Your task to perform on an android device: visit the assistant section in the google photos Image 0: 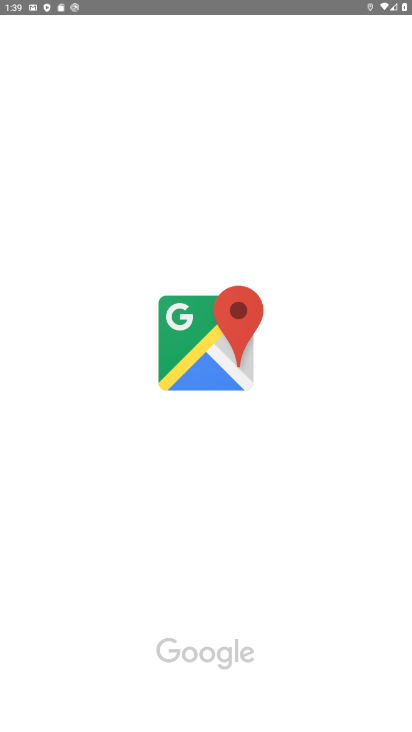
Step 0: drag from (279, 619) to (275, 450)
Your task to perform on an android device: visit the assistant section in the google photos Image 1: 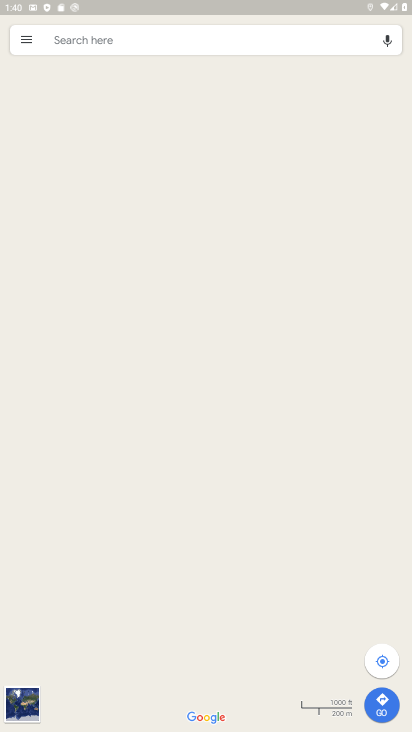
Step 1: press home button
Your task to perform on an android device: visit the assistant section in the google photos Image 2: 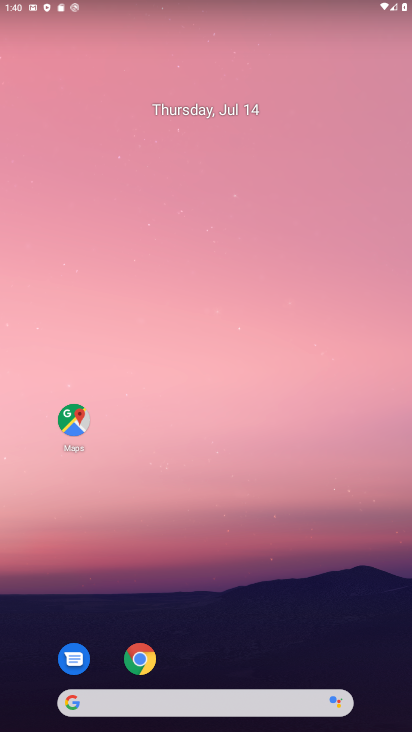
Step 2: drag from (234, 639) to (206, 198)
Your task to perform on an android device: visit the assistant section in the google photos Image 3: 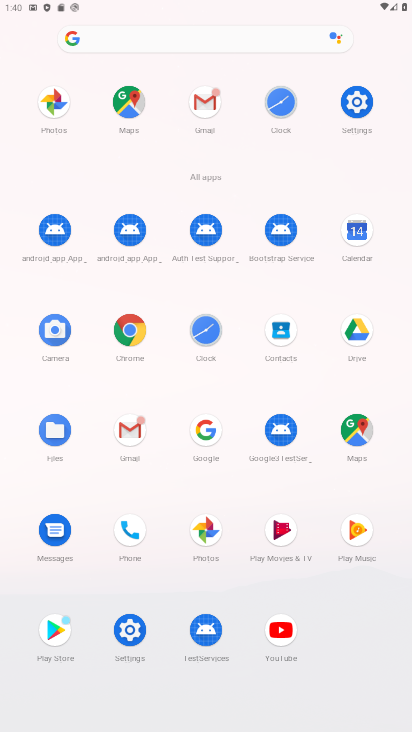
Step 3: click (46, 103)
Your task to perform on an android device: visit the assistant section in the google photos Image 4: 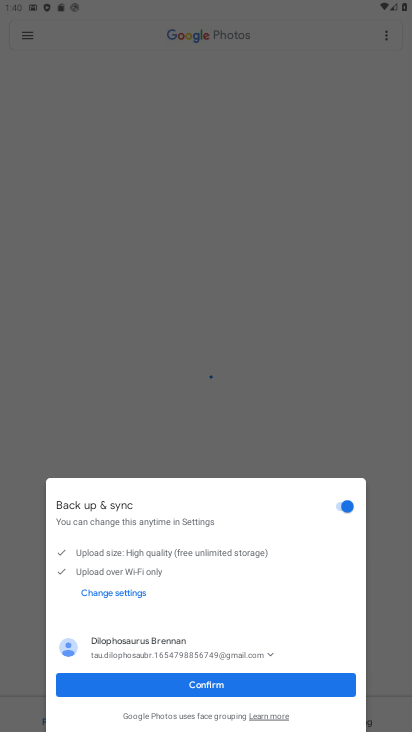
Step 4: click (248, 679)
Your task to perform on an android device: visit the assistant section in the google photos Image 5: 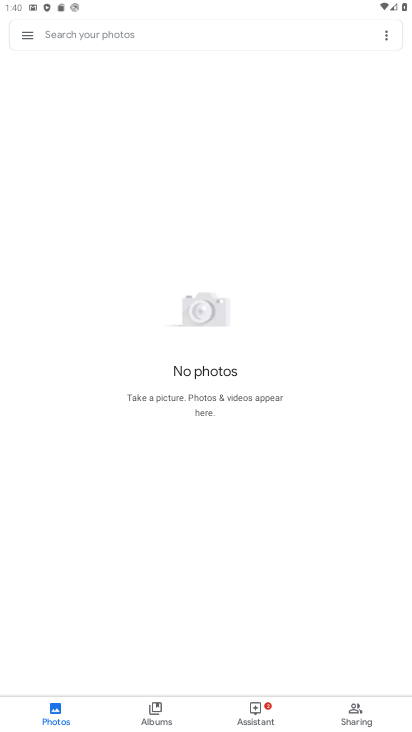
Step 5: click (257, 715)
Your task to perform on an android device: visit the assistant section in the google photos Image 6: 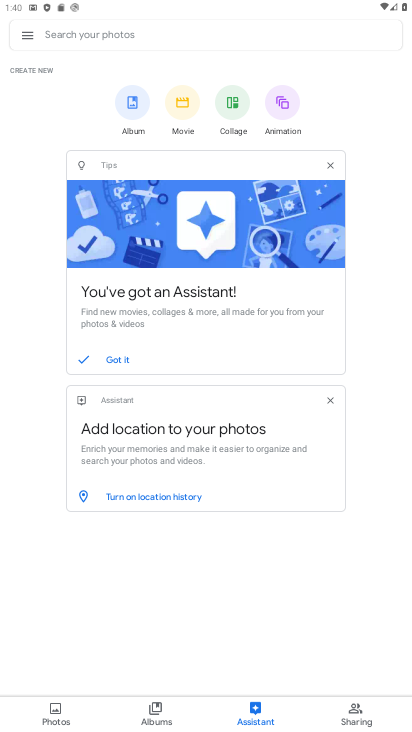
Step 6: task complete